Your task to perform on an android device: uninstall "Reddit" Image 0: 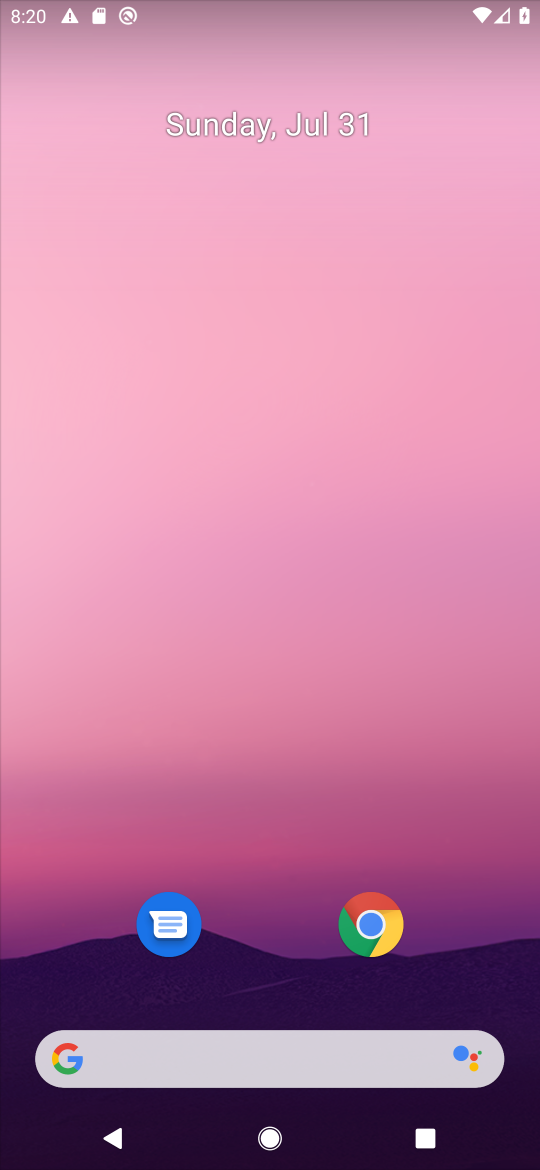
Step 0: press home button
Your task to perform on an android device: uninstall "Reddit" Image 1: 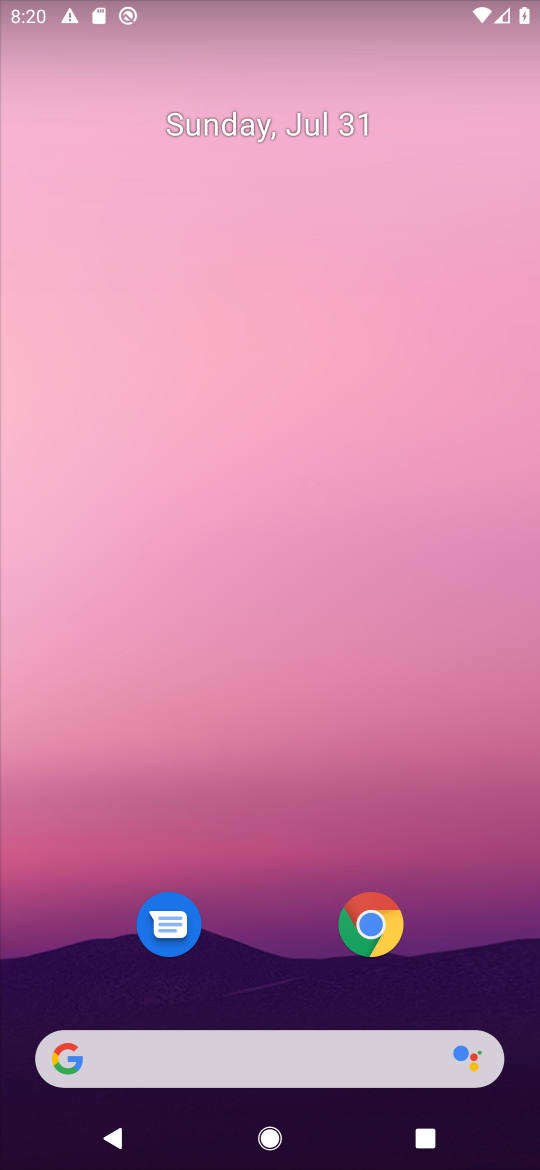
Step 1: drag from (249, 1002) to (274, 533)
Your task to perform on an android device: uninstall "Reddit" Image 2: 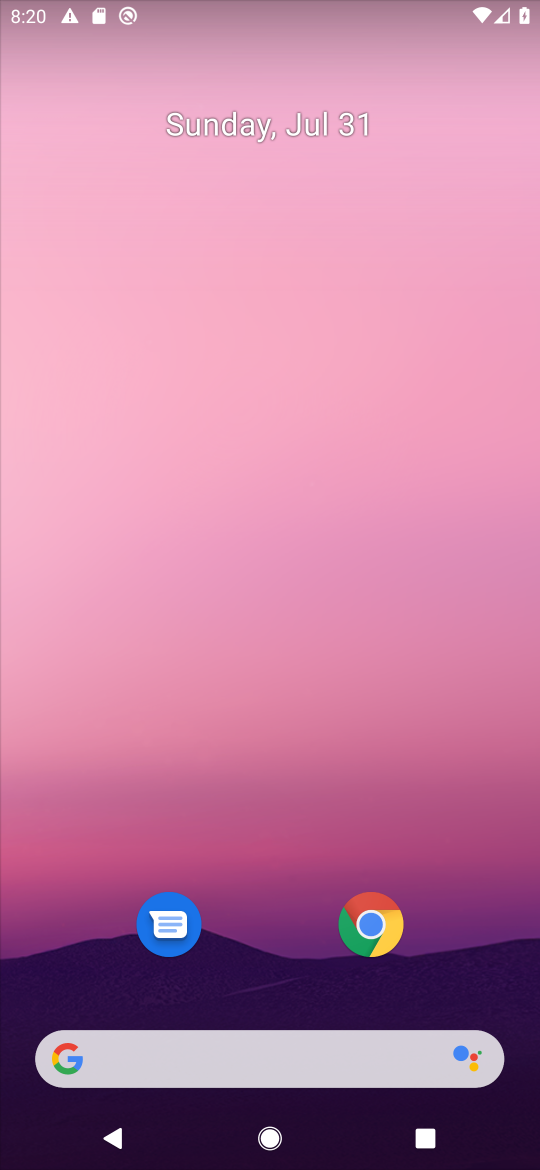
Step 2: drag from (427, 986) to (484, 265)
Your task to perform on an android device: uninstall "Reddit" Image 3: 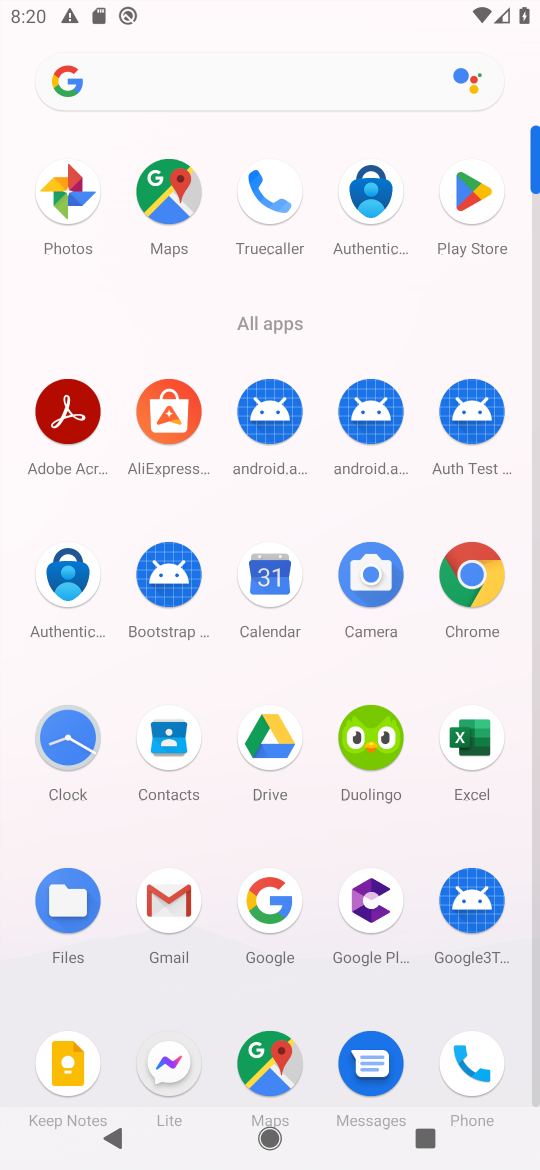
Step 3: click (479, 198)
Your task to perform on an android device: uninstall "Reddit" Image 4: 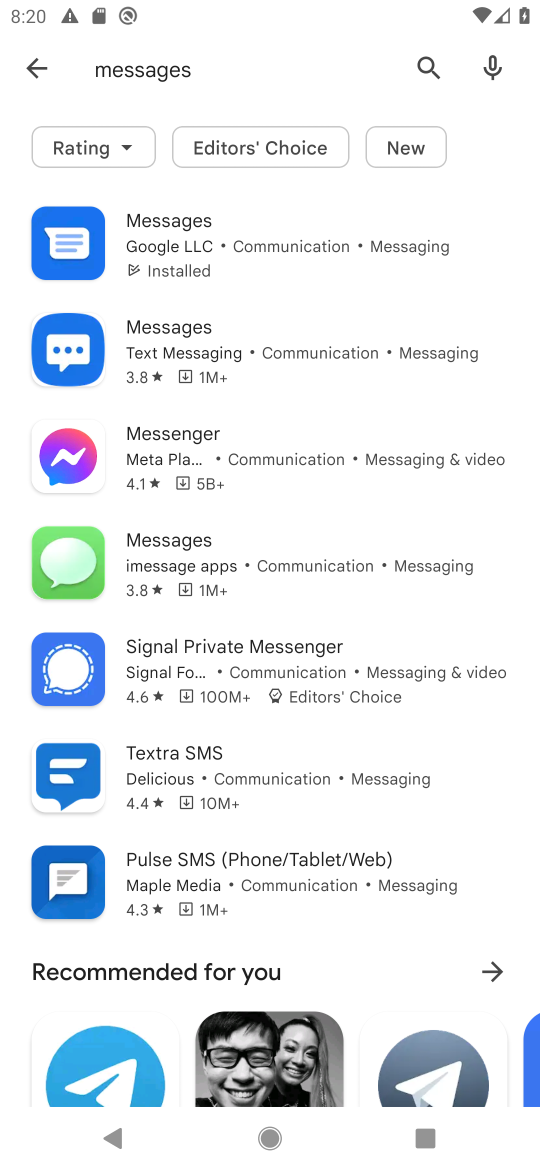
Step 4: click (425, 67)
Your task to perform on an android device: uninstall "Reddit" Image 5: 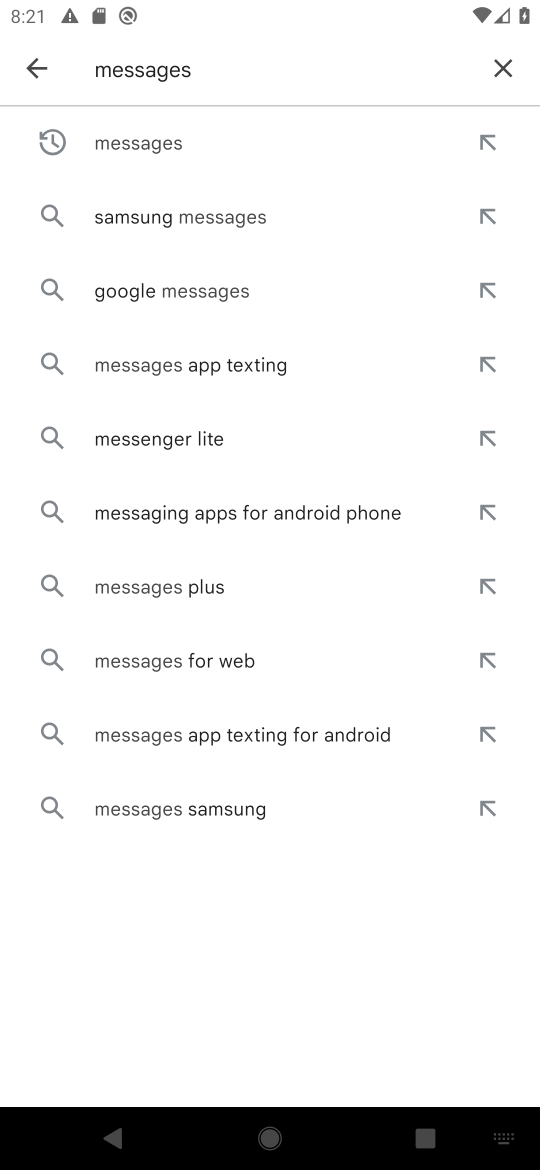
Step 5: type "Reddit"
Your task to perform on an android device: uninstall "Reddit" Image 6: 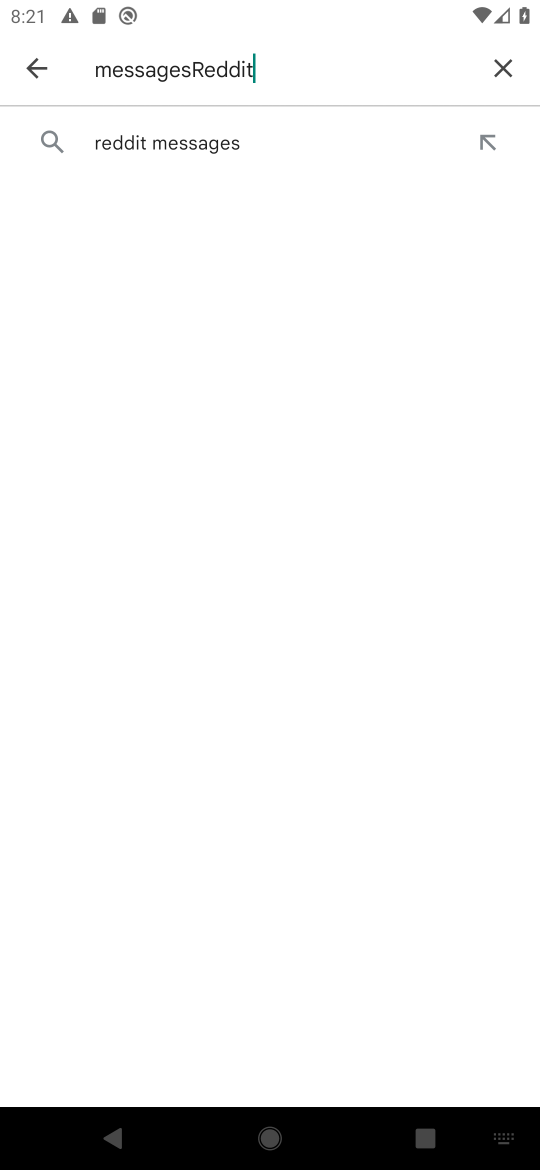
Step 6: click (511, 72)
Your task to perform on an android device: uninstall "Reddit" Image 7: 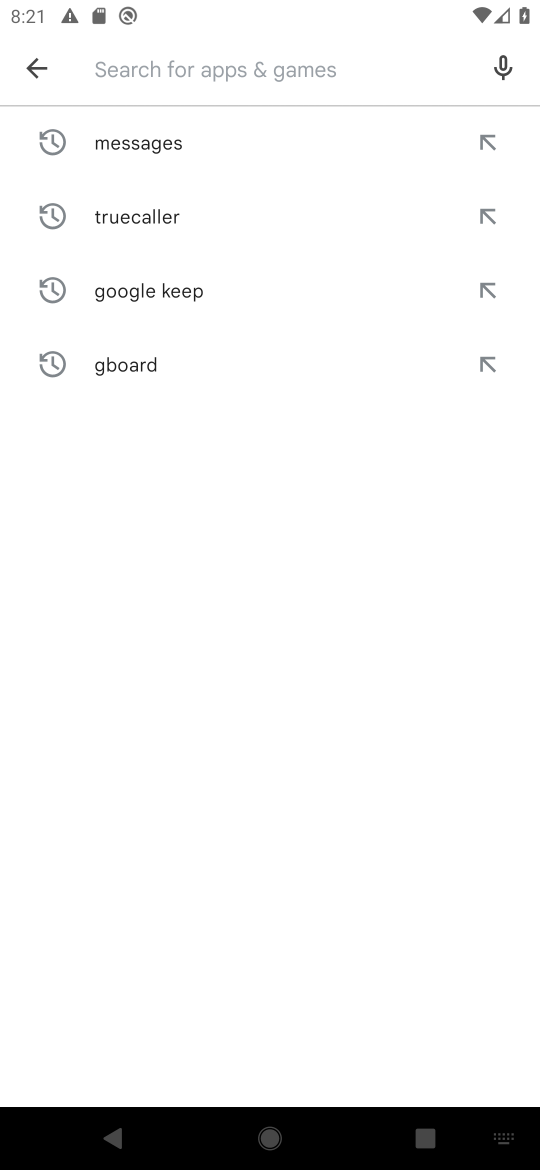
Step 7: type "Reddit"
Your task to perform on an android device: uninstall "Reddit" Image 8: 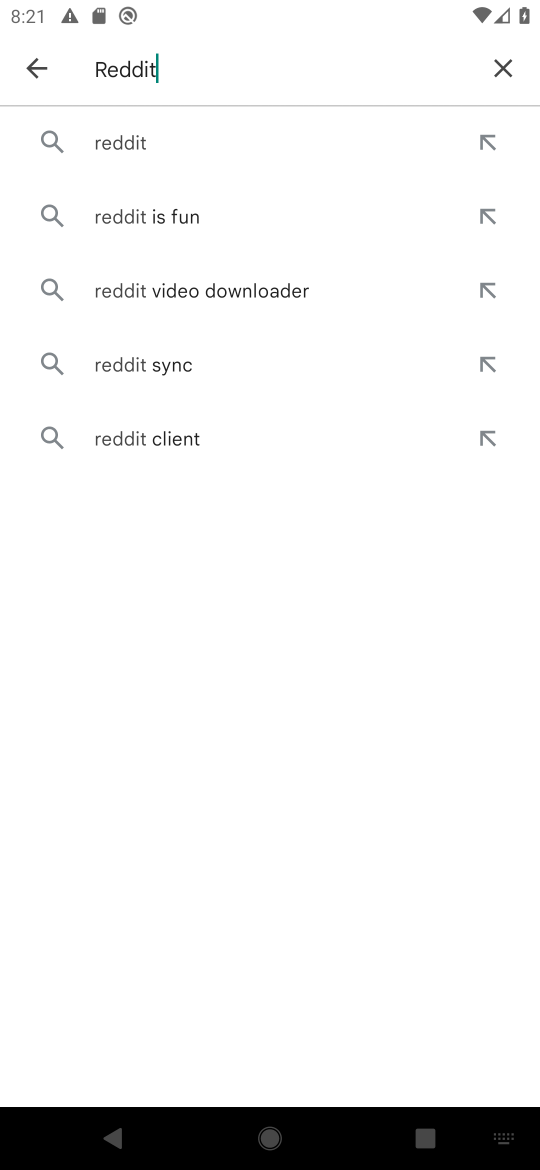
Step 8: click (94, 153)
Your task to perform on an android device: uninstall "Reddit" Image 9: 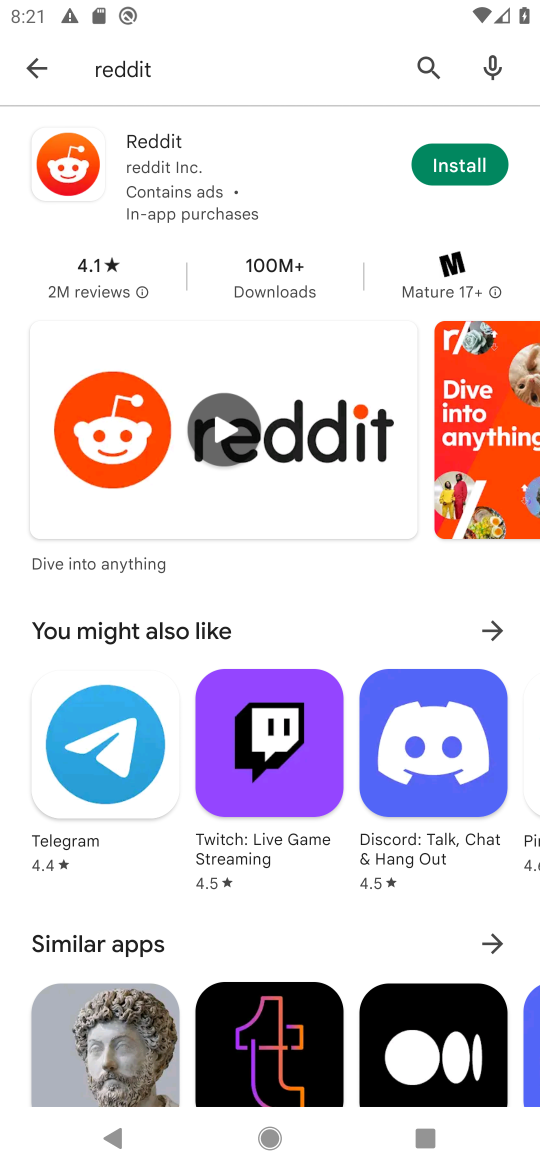
Step 9: task complete